Your task to perform on an android device: uninstall "Yahoo Mail" Image 0: 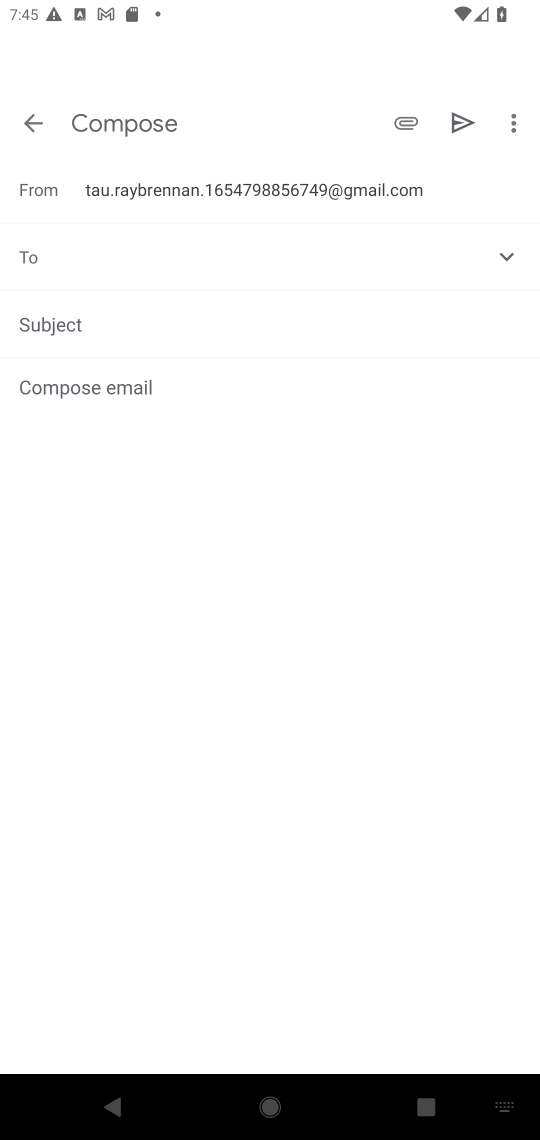
Step 0: press home button
Your task to perform on an android device: uninstall "Yahoo Mail" Image 1: 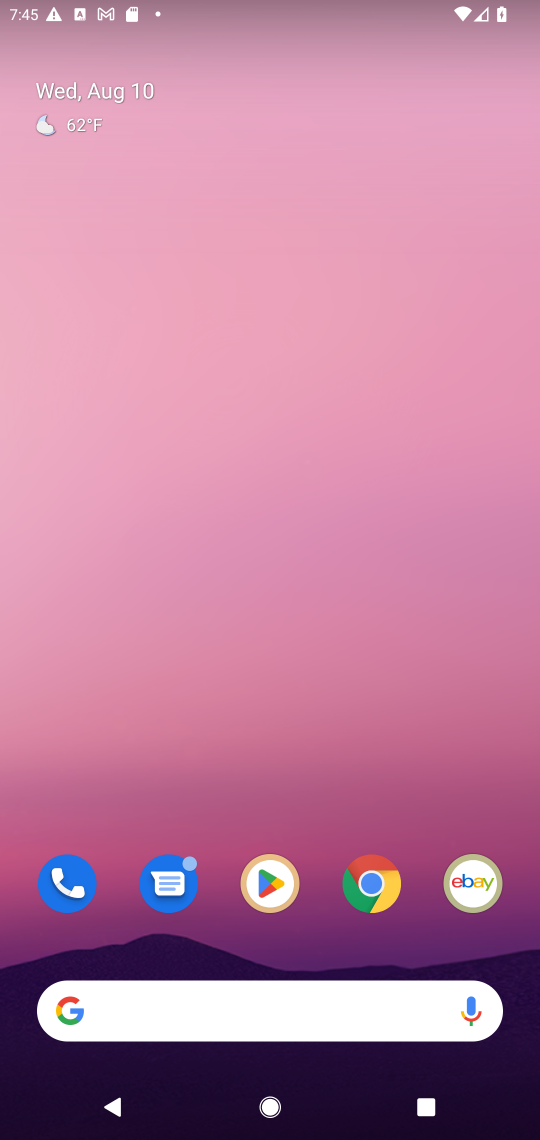
Step 1: click (281, 879)
Your task to perform on an android device: uninstall "Yahoo Mail" Image 2: 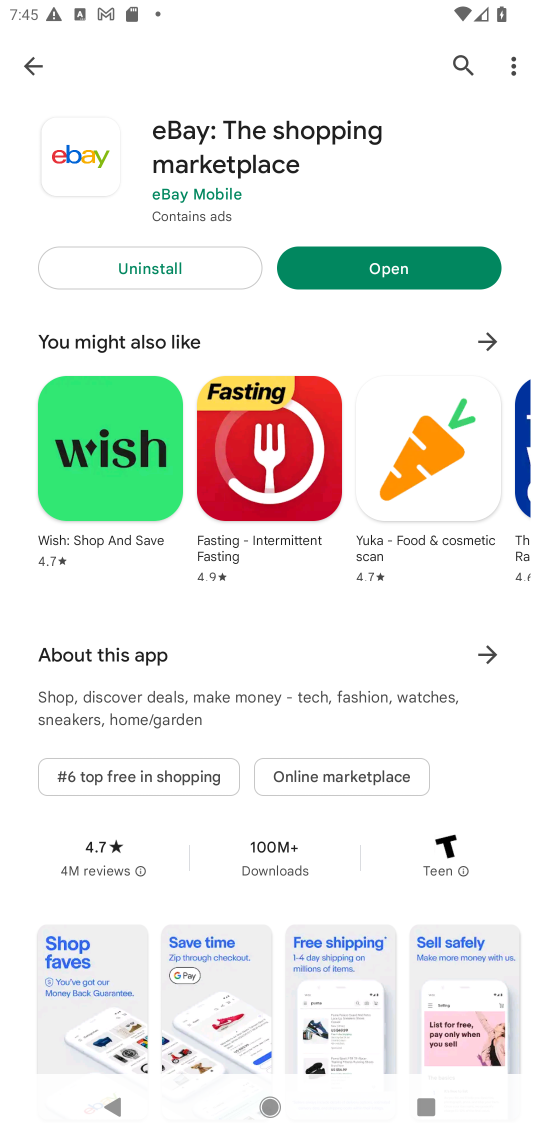
Step 2: click (493, 64)
Your task to perform on an android device: uninstall "Yahoo Mail" Image 3: 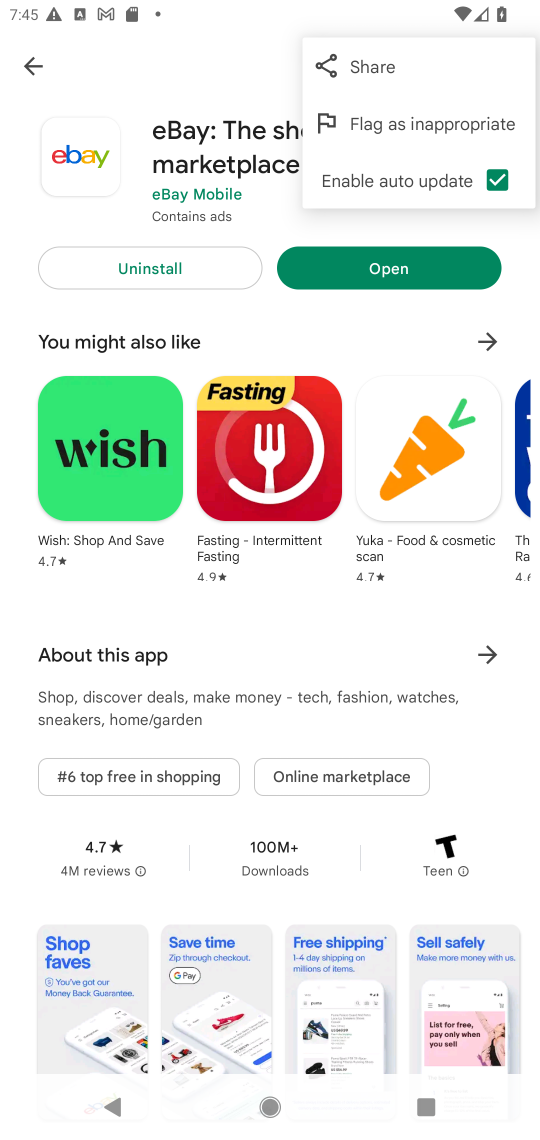
Step 3: click (159, 78)
Your task to perform on an android device: uninstall "Yahoo Mail" Image 4: 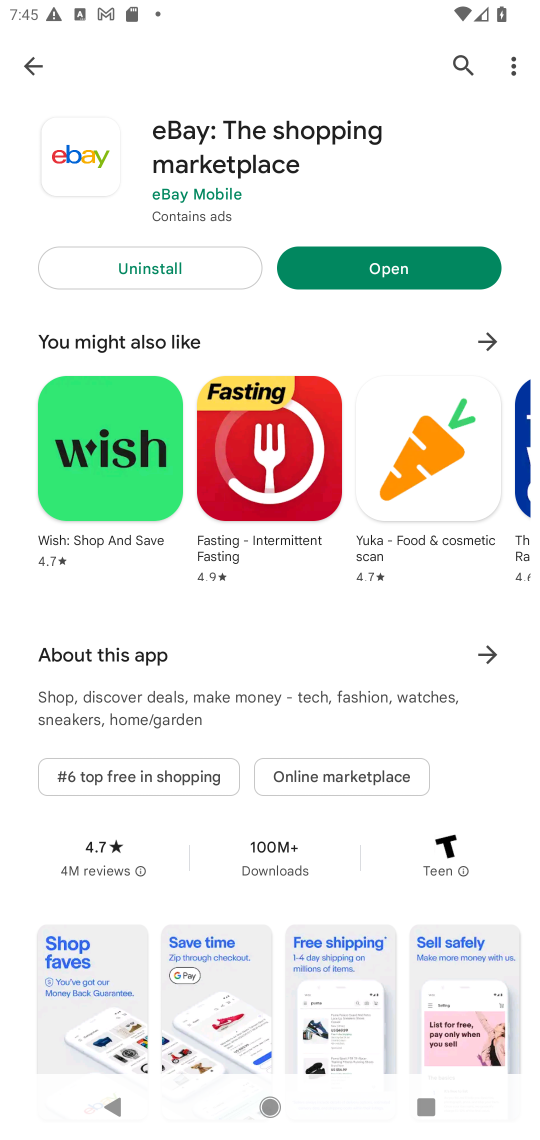
Step 4: click (455, 71)
Your task to perform on an android device: uninstall "Yahoo Mail" Image 5: 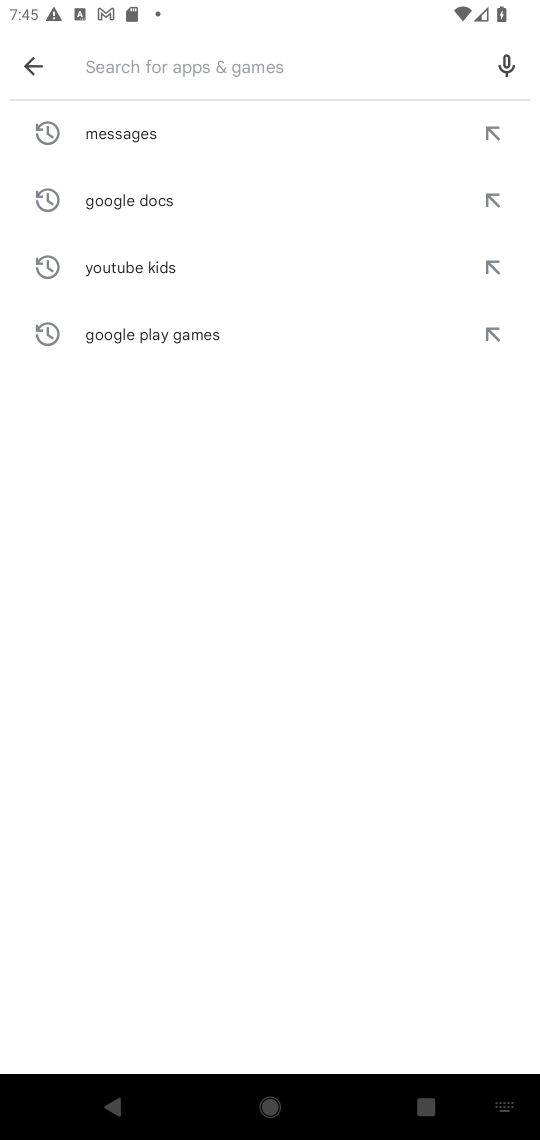
Step 5: type "Yahoo Mail"
Your task to perform on an android device: uninstall "Yahoo Mail" Image 6: 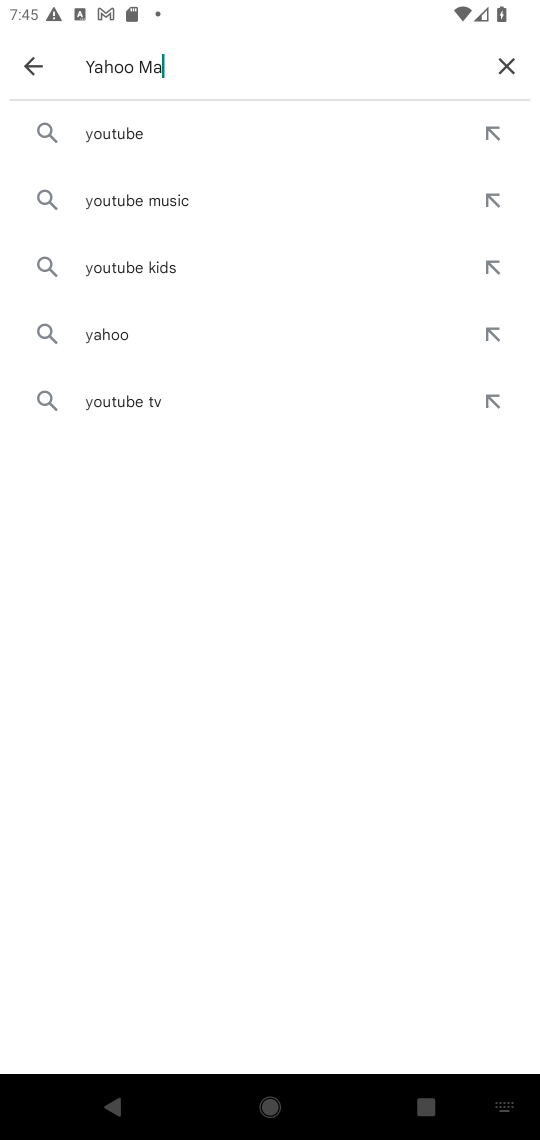
Step 6: type ""
Your task to perform on an android device: uninstall "Yahoo Mail" Image 7: 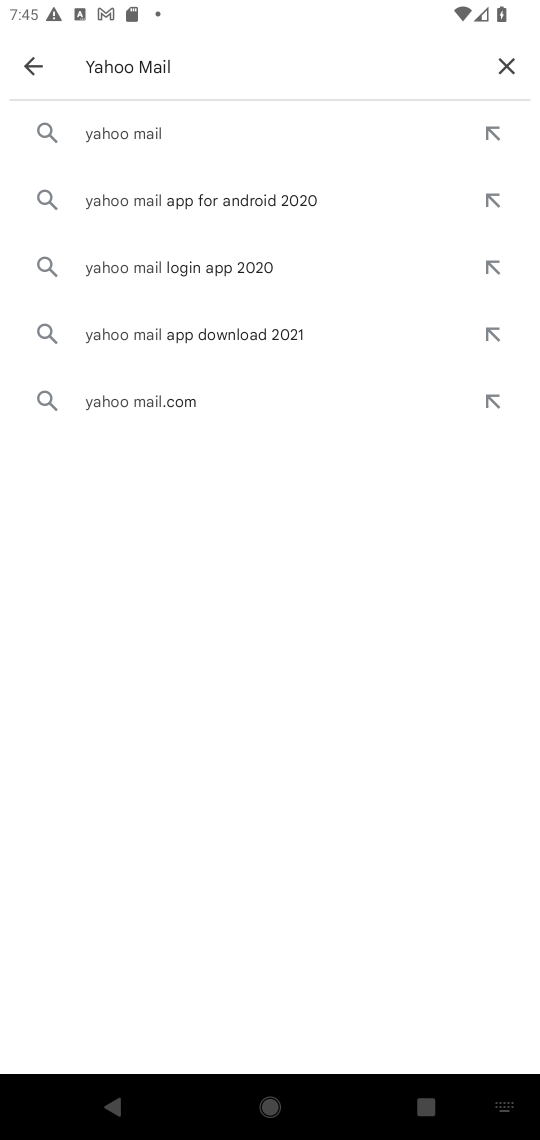
Step 7: click (113, 132)
Your task to perform on an android device: uninstall "Yahoo Mail" Image 8: 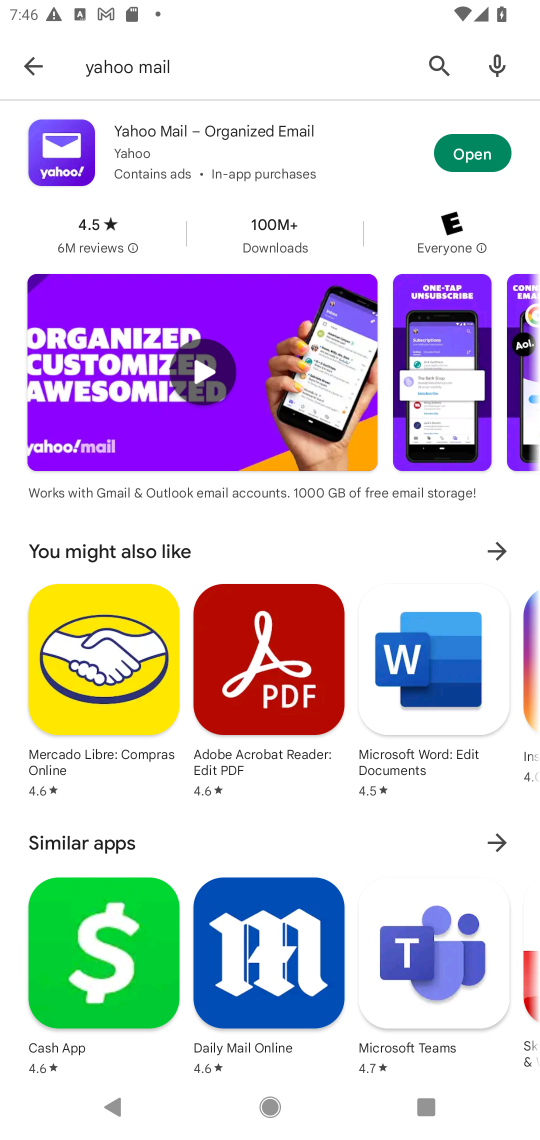
Step 8: click (423, 71)
Your task to perform on an android device: uninstall "Yahoo Mail" Image 9: 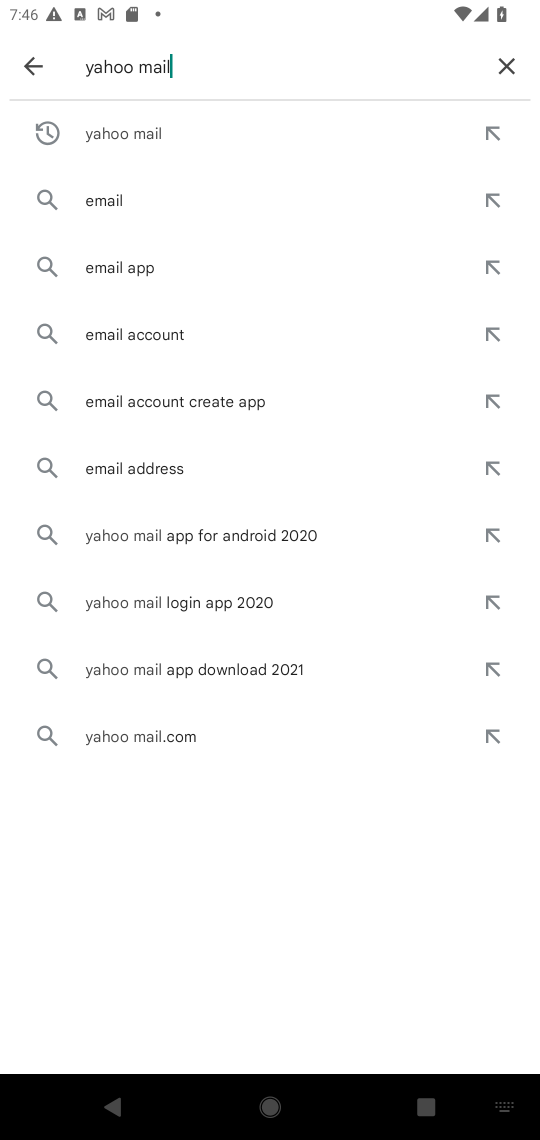
Step 9: click (499, 62)
Your task to perform on an android device: uninstall "Yahoo Mail" Image 10: 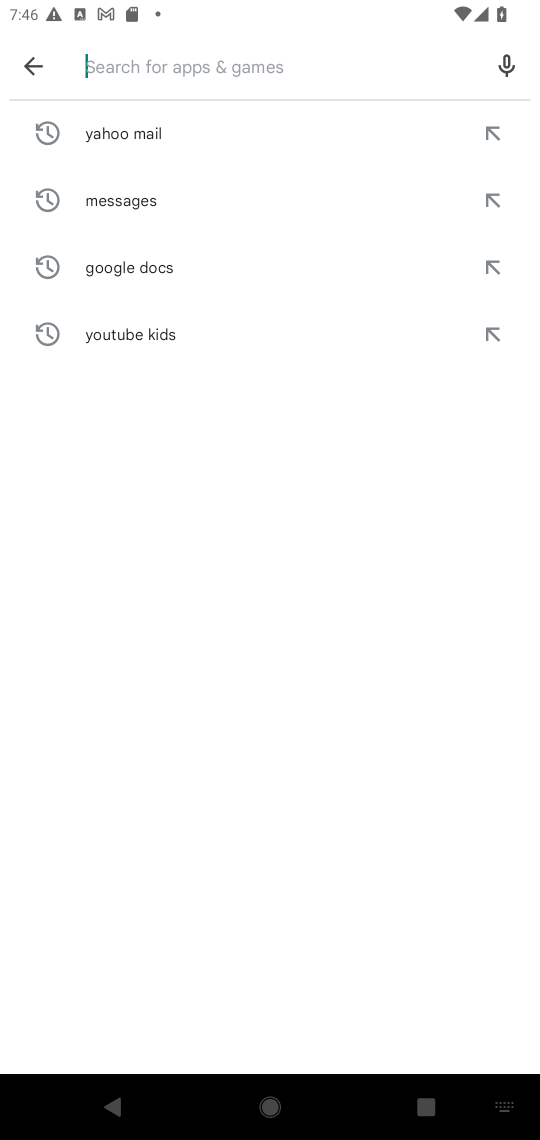
Step 10: type "Yahoo Mail"
Your task to perform on an android device: uninstall "Yahoo Mail" Image 11: 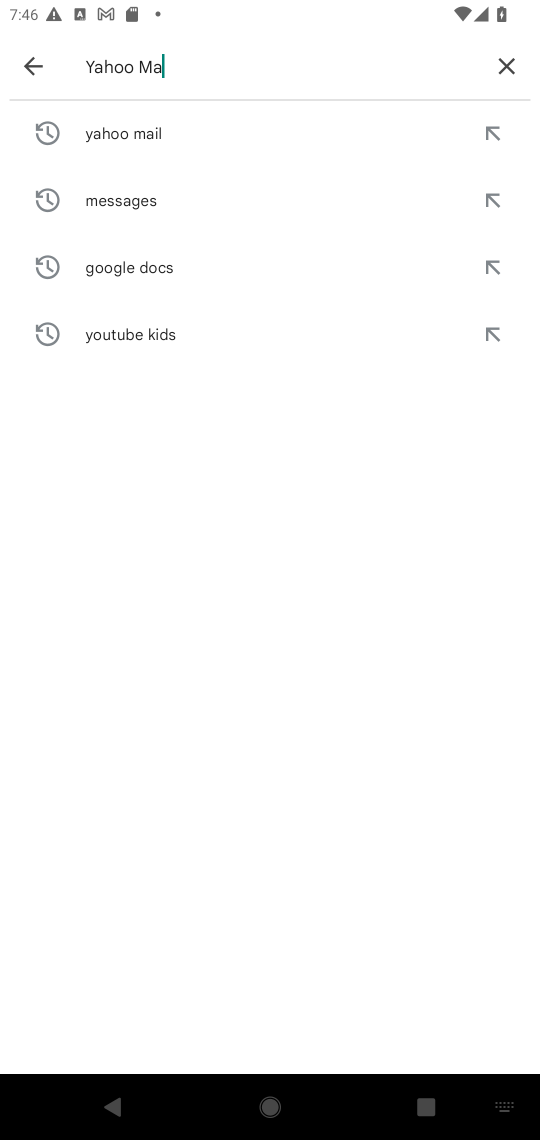
Step 11: type ""
Your task to perform on an android device: uninstall "Yahoo Mail" Image 12: 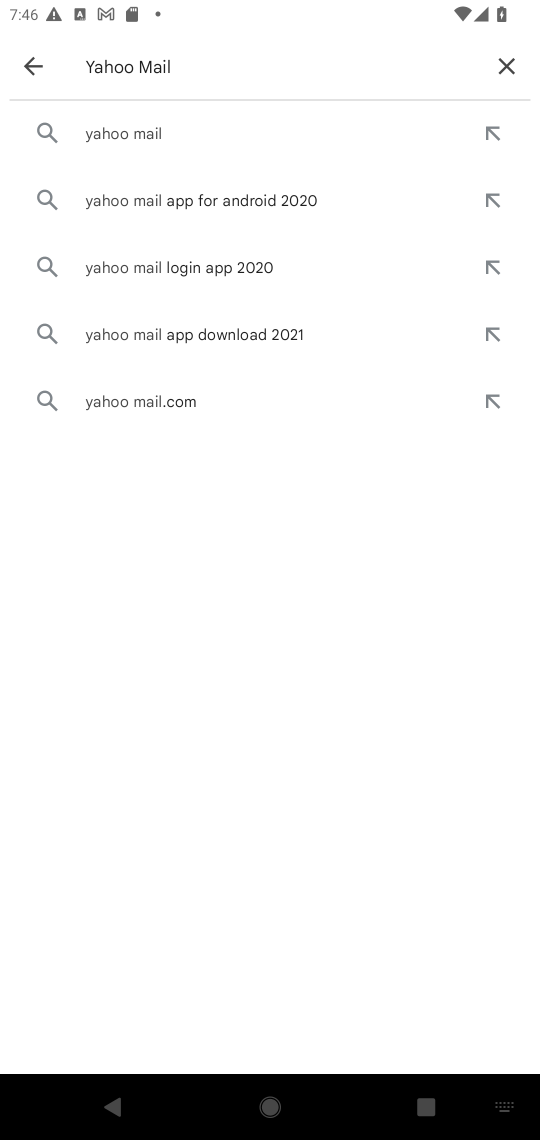
Step 12: click (172, 122)
Your task to perform on an android device: uninstall "Yahoo Mail" Image 13: 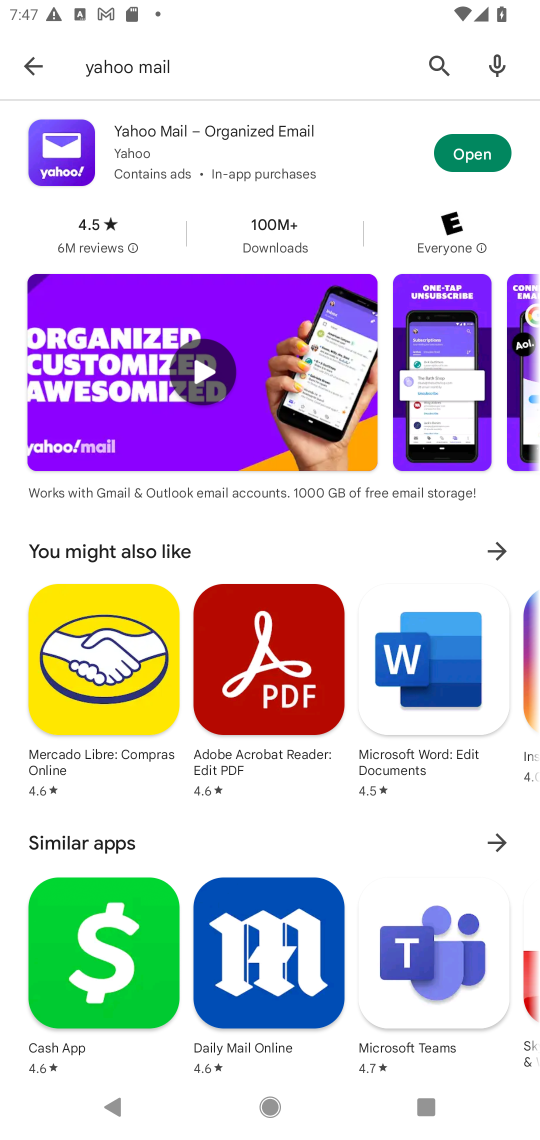
Step 13: click (132, 135)
Your task to perform on an android device: uninstall "Yahoo Mail" Image 14: 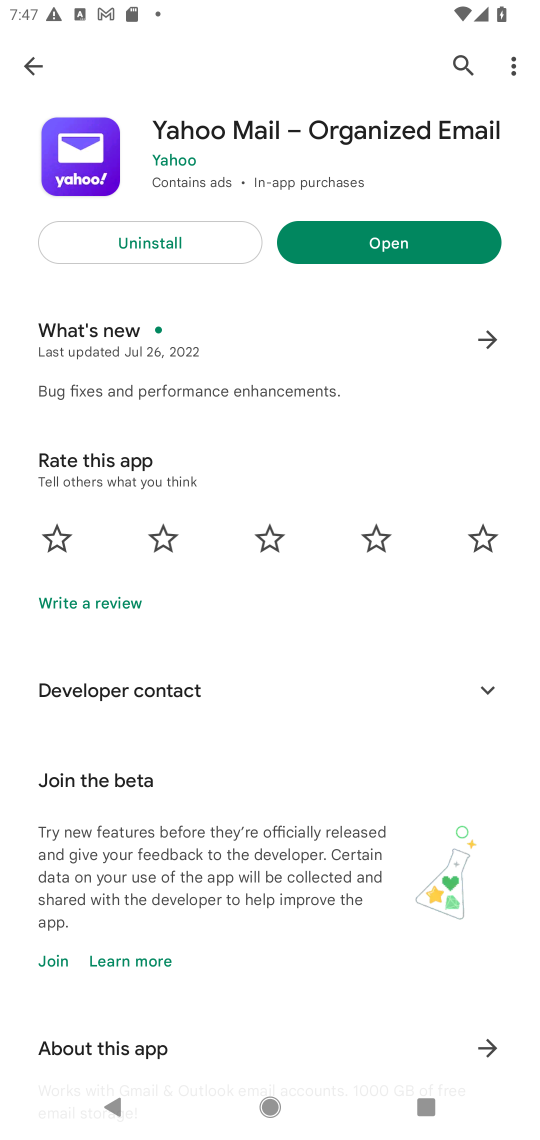
Step 14: click (155, 245)
Your task to perform on an android device: uninstall "Yahoo Mail" Image 15: 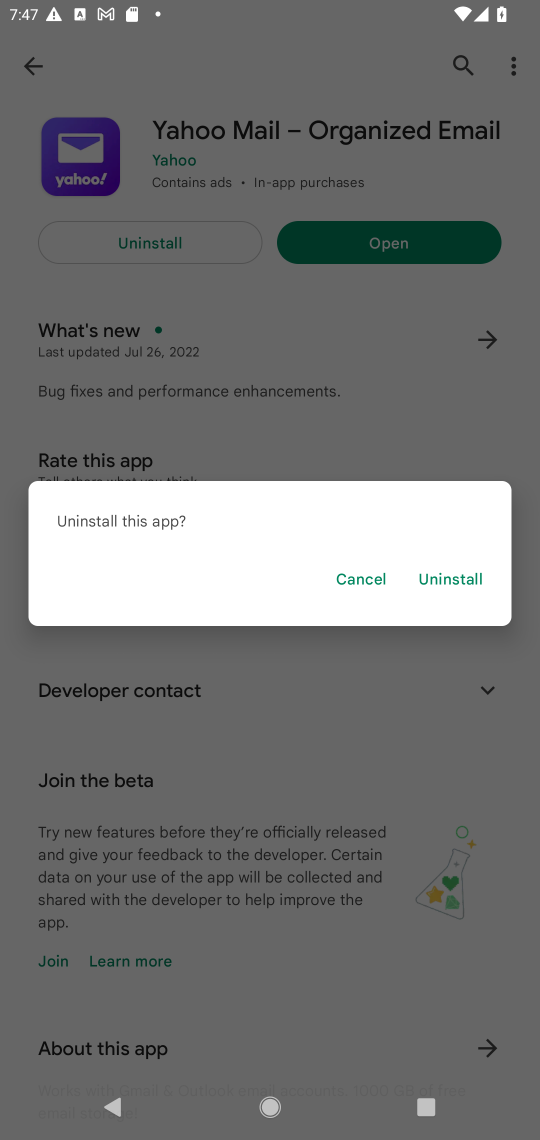
Step 15: click (438, 589)
Your task to perform on an android device: uninstall "Yahoo Mail" Image 16: 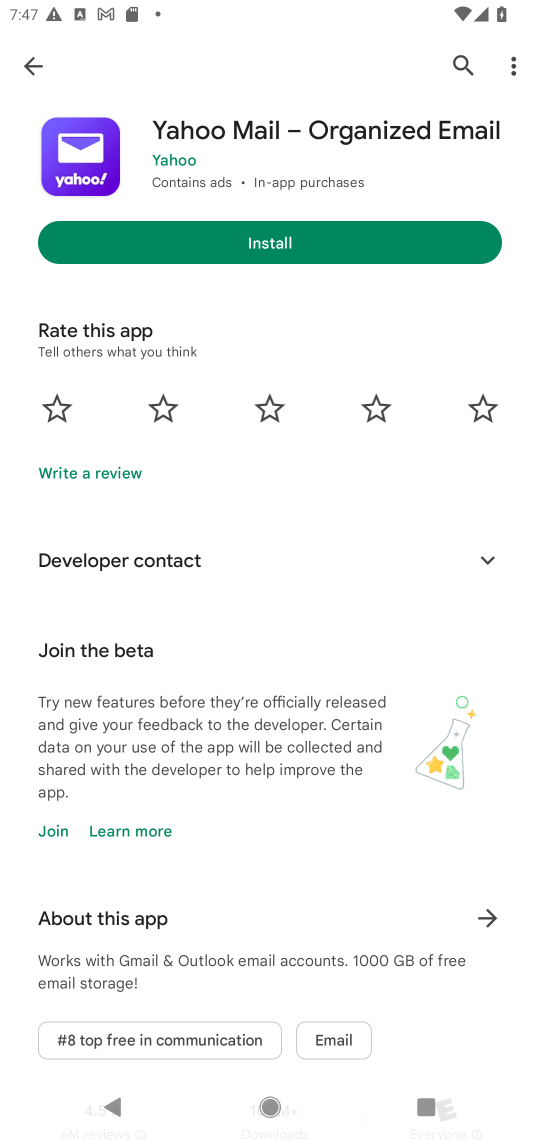
Step 16: task complete